Your task to perform on an android device: uninstall "File Manager" Image 0: 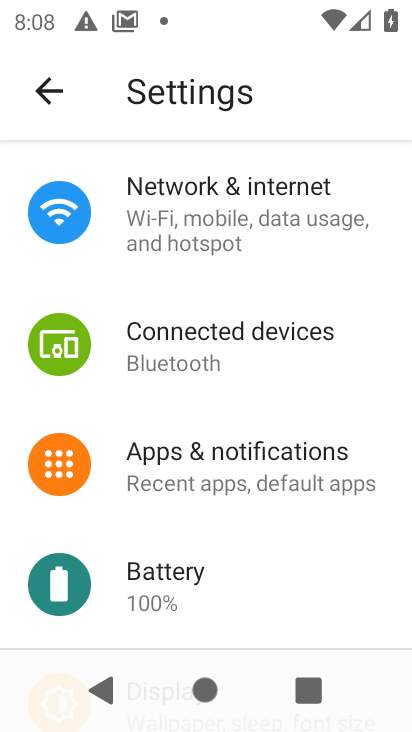
Step 0: press home button
Your task to perform on an android device: uninstall "File Manager" Image 1: 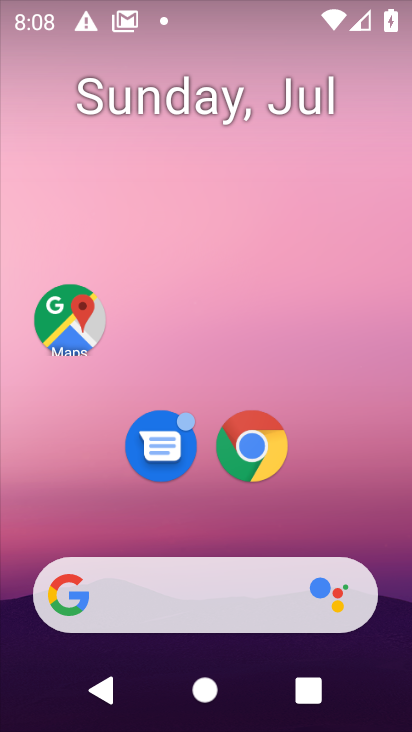
Step 1: drag from (203, 535) to (209, 6)
Your task to perform on an android device: uninstall "File Manager" Image 2: 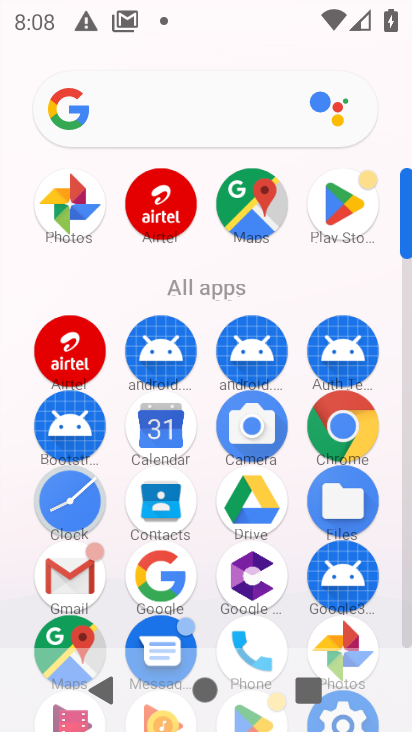
Step 2: drag from (208, 489) to (206, 223)
Your task to perform on an android device: uninstall "File Manager" Image 3: 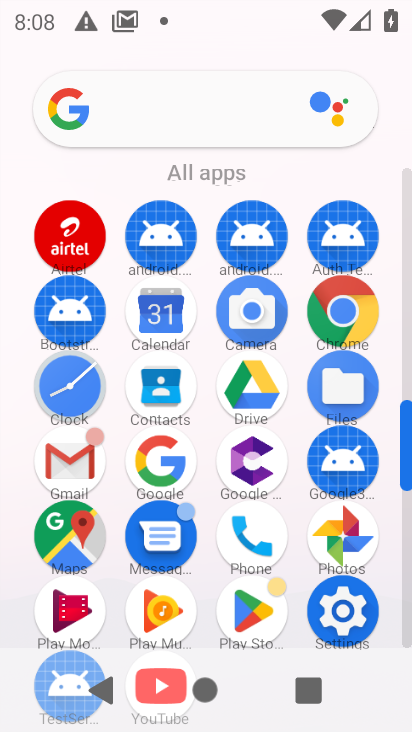
Step 3: click (260, 619)
Your task to perform on an android device: uninstall "File Manager" Image 4: 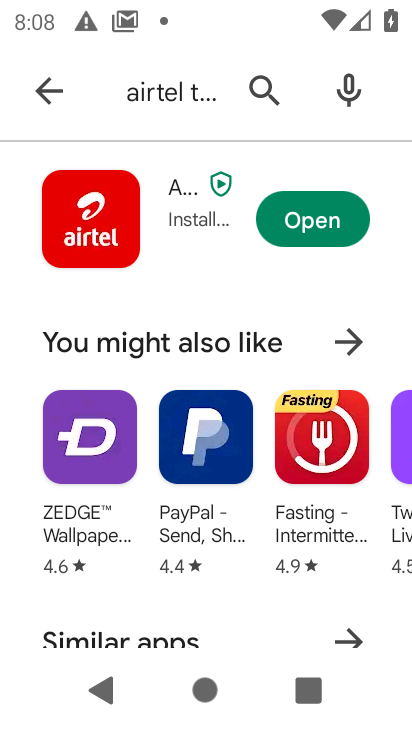
Step 4: click (269, 76)
Your task to perform on an android device: uninstall "File Manager" Image 5: 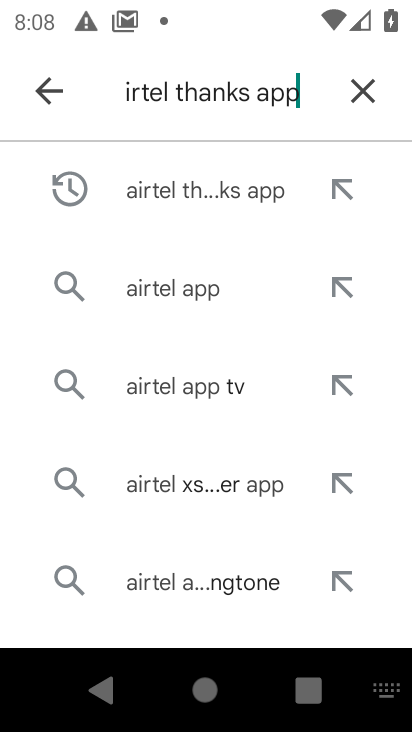
Step 5: click (369, 82)
Your task to perform on an android device: uninstall "File Manager" Image 6: 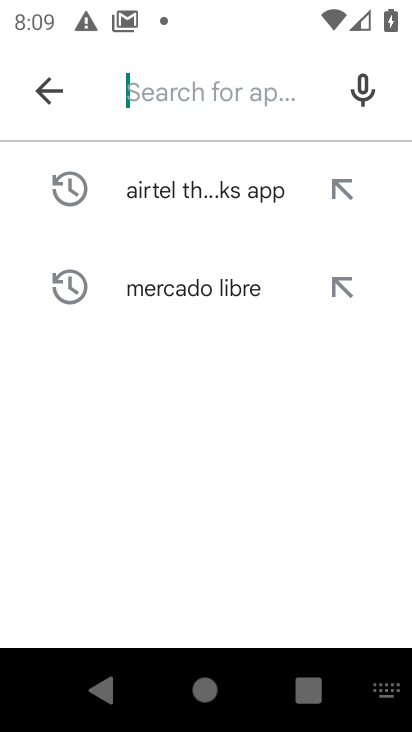
Step 6: type "File manager"
Your task to perform on an android device: uninstall "File Manager" Image 7: 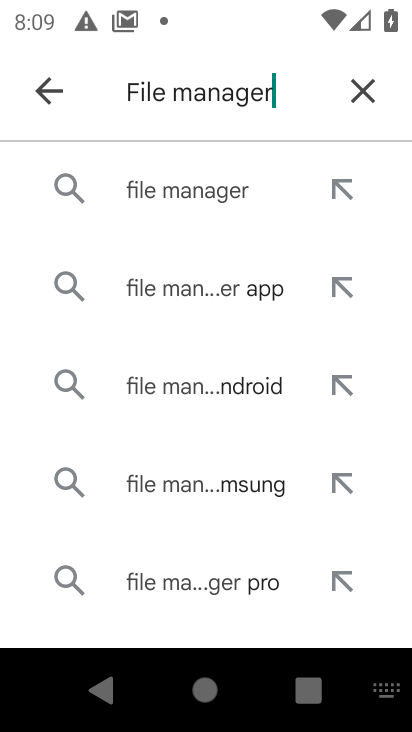
Step 7: click (192, 197)
Your task to perform on an android device: uninstall "File Manager" Image 8: 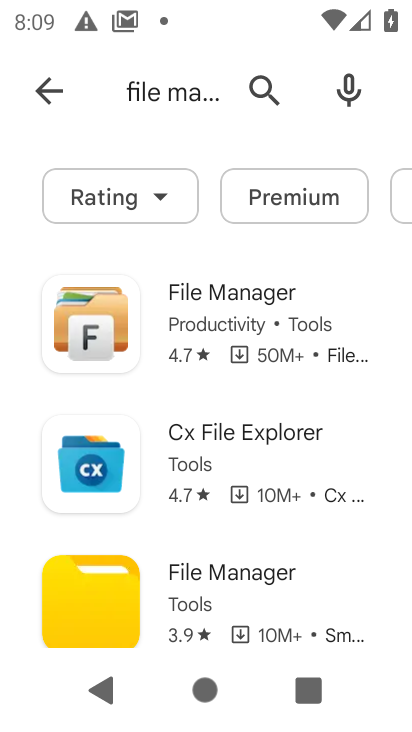
Step 8: click (103, 315)
Your task to perform on an android device: uninstall "File Manager" Image 9: 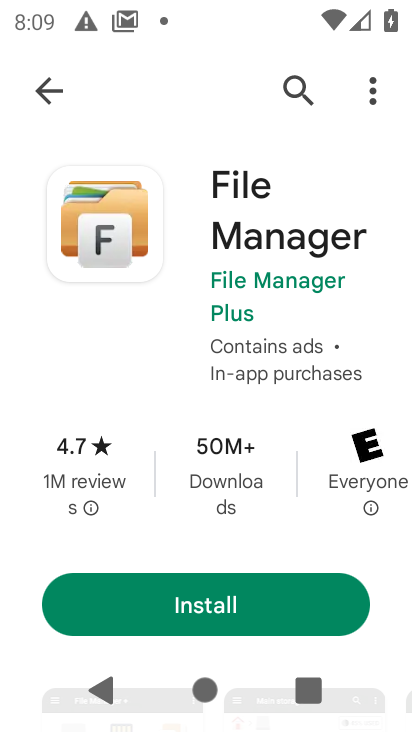
Step 9: task complete